Your task to perform on an android device: toggle sleep mode Image 0: 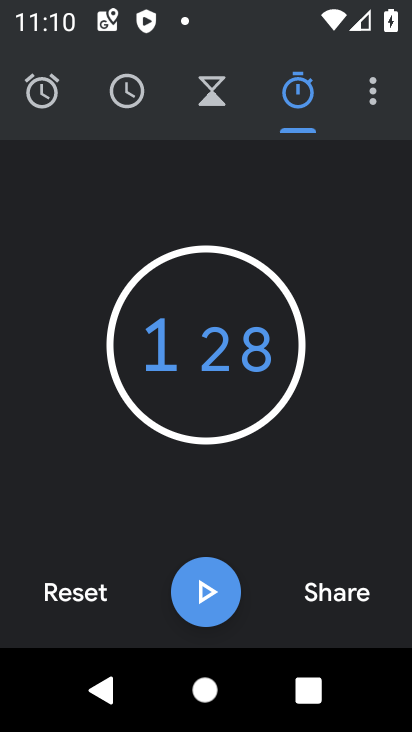
Step 0: press back button
Your task to perform on an android device: toggle sleep mode Image 1: 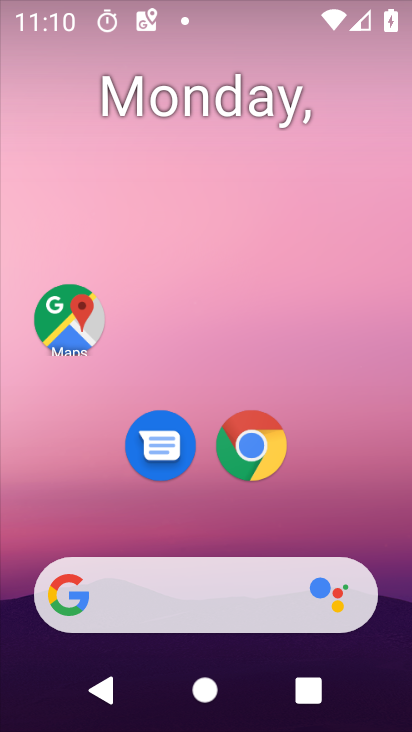
Step 1: drag from (211, 483) to (271, 88)
Your task to perform on an android device: toggle sleep mode Image 2: 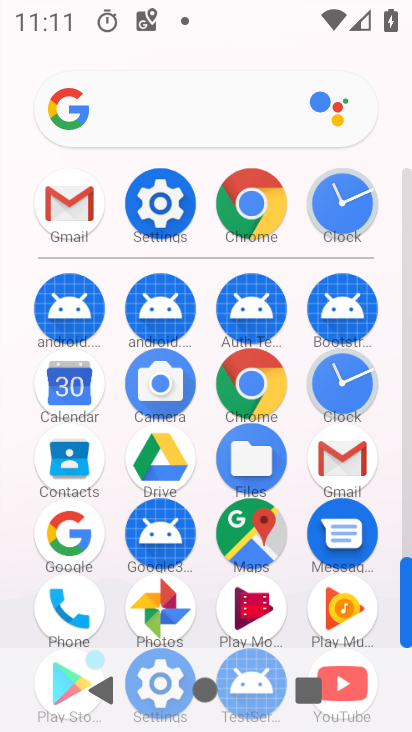
Step 2: click (157, 214)
Your task to perform on an android device: toggle sleep mode Image 3: 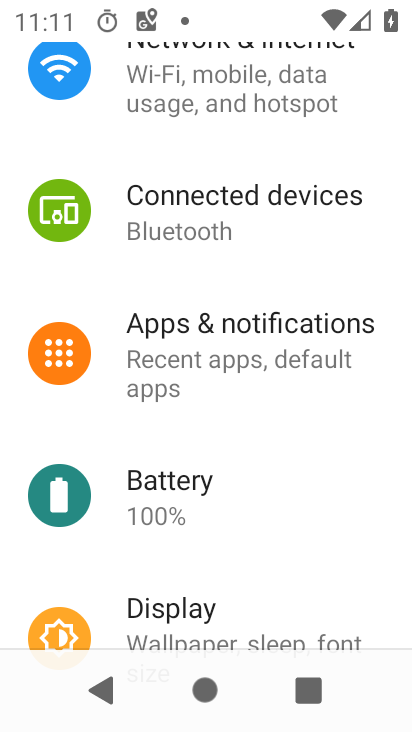
Step 3: drag from (178, 150) to (179, 668)
Your task to perform on an android device: toggle sleep mode Image 4: 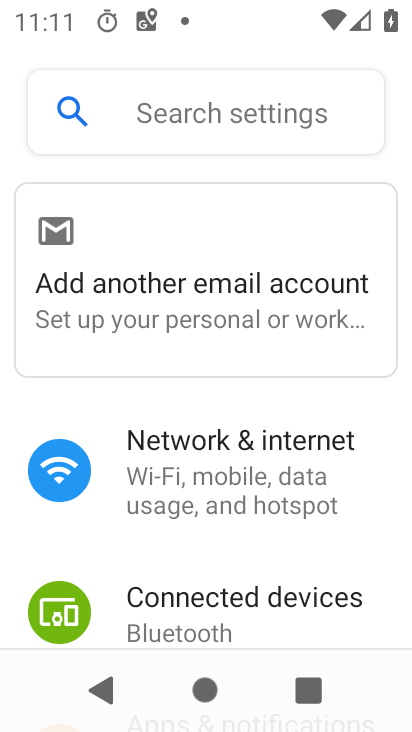
Step 4: click (155, 120)
Your task to perform on an android device: toggle sleep mode Image 5: 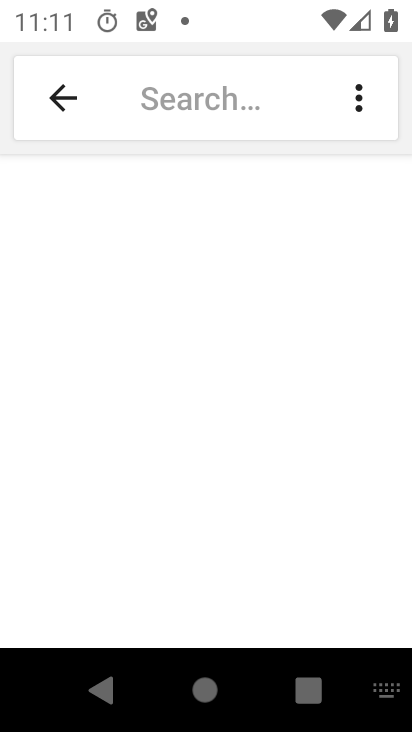
Step 5: type "sleep mode"
Your task to perform on an android device: toggle sleep mode Image 6: 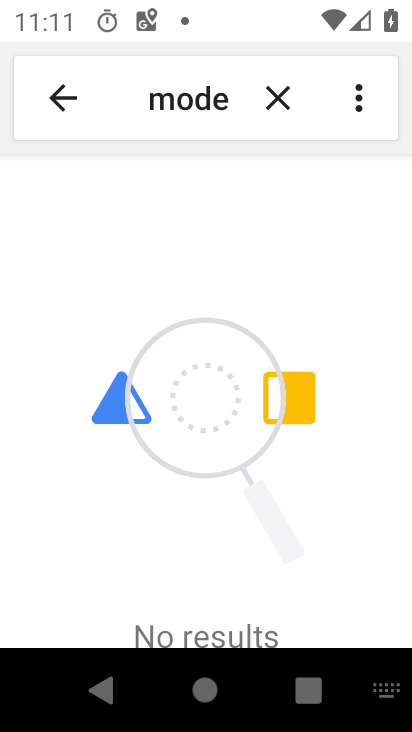
Step 6: task complete